Your task to perform on an android device: Go to eBay Image 0: 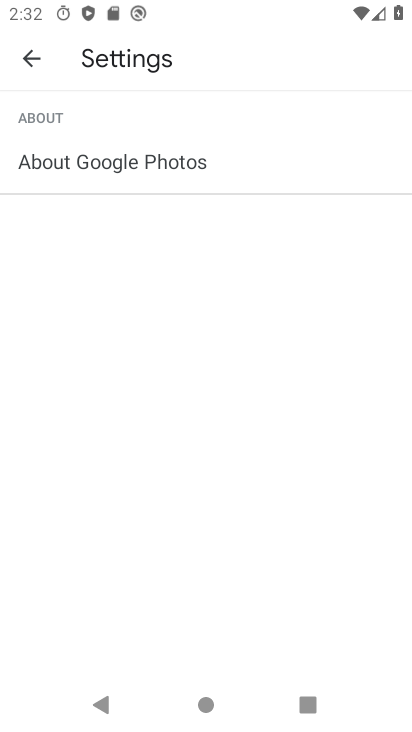
Step 0: press home button
Your task to perform on an android device: Go to eBay Image 1: 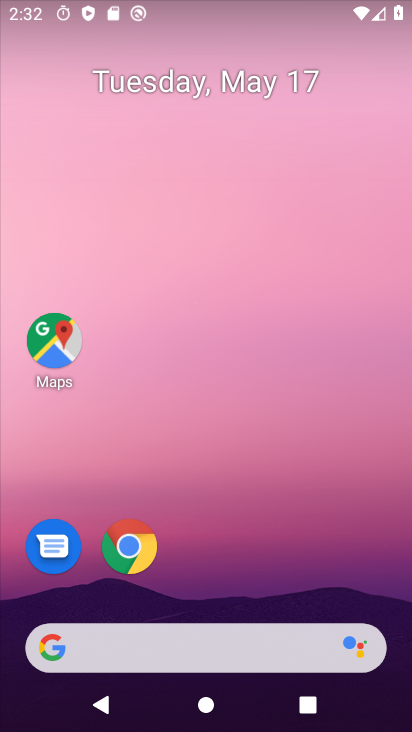
Step 1: click (129, 561)
Your task to perform on an android device: Go to eBay Image 2: 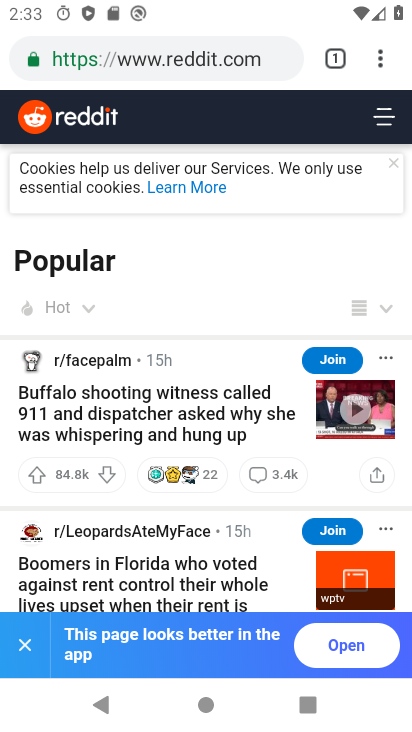
Step 2: click (154, 62)
Your task to perform on an android device: Go to eBay Image 3: 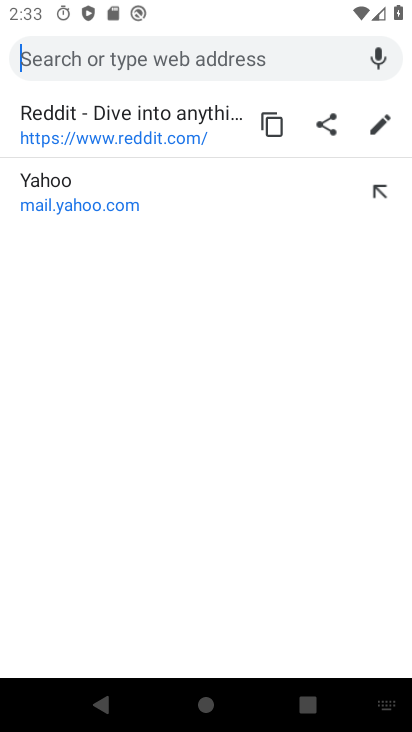
Step 3: type "eb"
Your task to perform on an android device: Go to eBay Image 4: 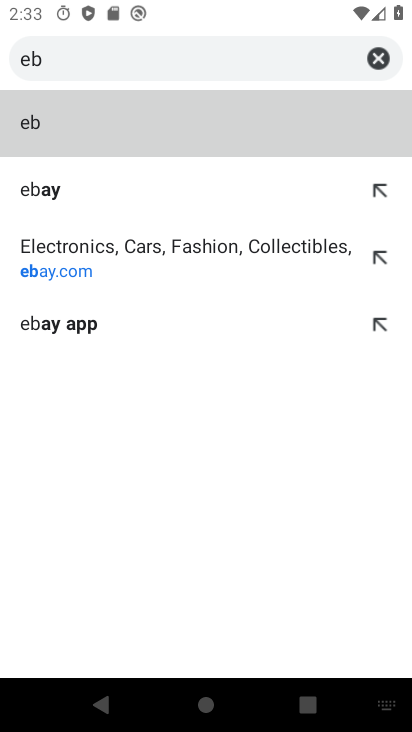
Step 4: click (113, 207)
Your task to perform on an android device: Go to eBay Image 5: 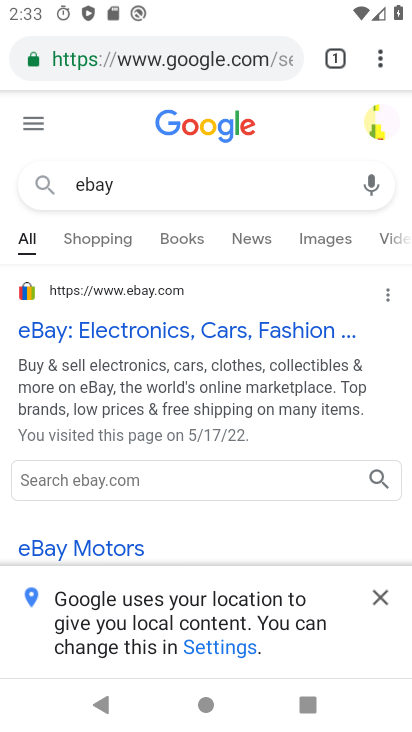
Step 5: click (71, 338)
Your task to perform on an android device: Go to eBay Image 6: 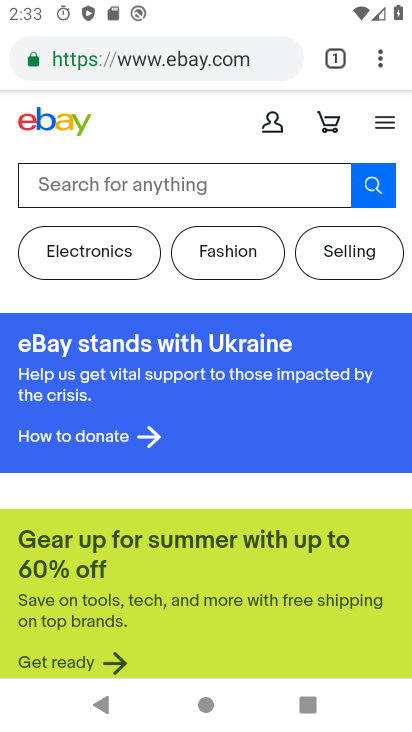
Step 6: task complete